Your task to perform on an android device: turn off location history Image 0: 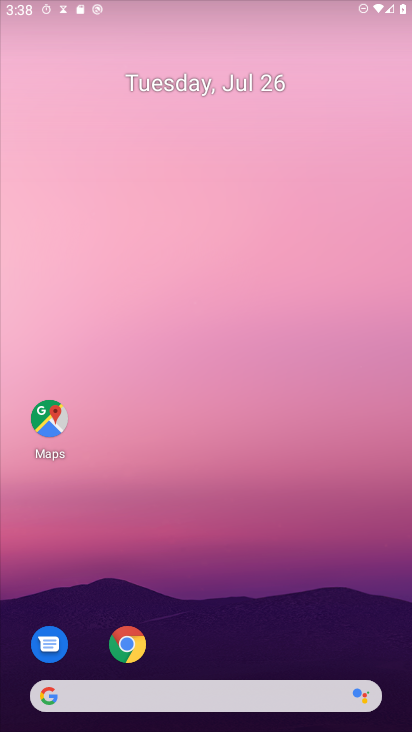
Step 0: press home button
Your task to perform on an android device: turn off location history Image 1: 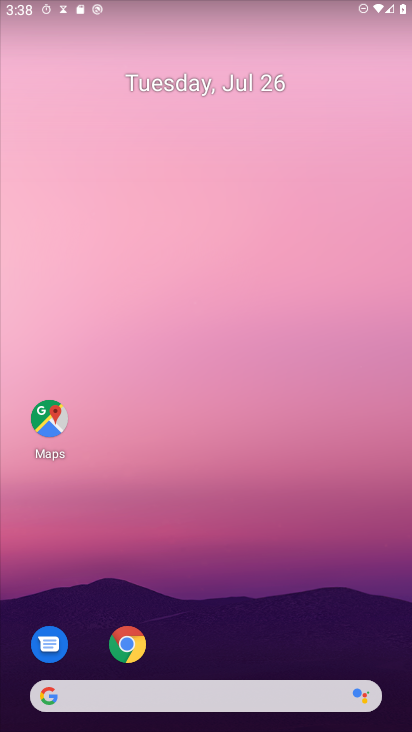
Step 1: drag from (291, 627) to (271, 0)
Your task to perform on an android device: turn off location history Image 2: 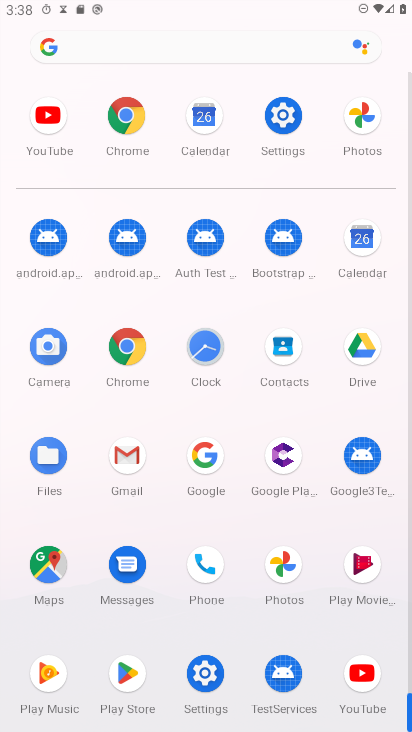
Step 2: click (288, 138)
Your task to perform on an android device: turn off location history Image 3: 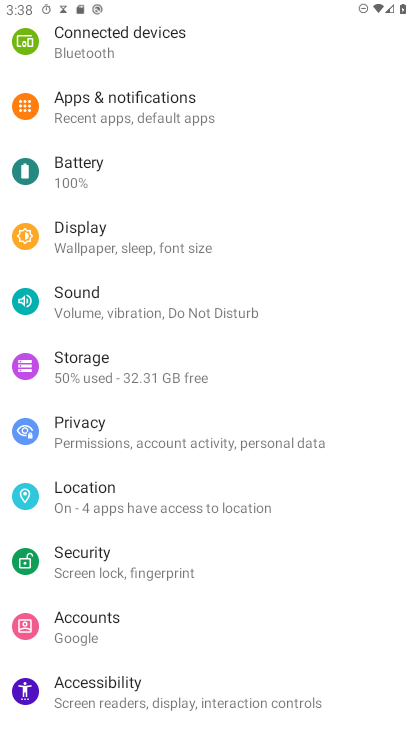
Step 3: click (103, 487)
Your task to perform on an android device: turn off location history Image 4: 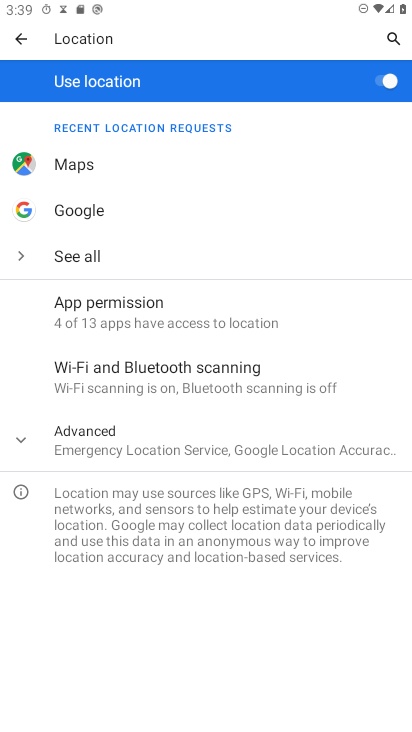
Step 4: click (21, 439)
Your task to perform on an android device: turn off location history Image 5: 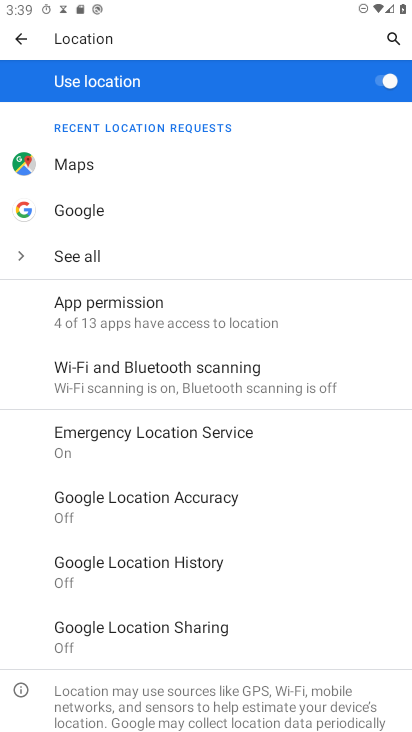
Step 5: task complete